Your task to perform on an android device: Go to internet settings Image 0: 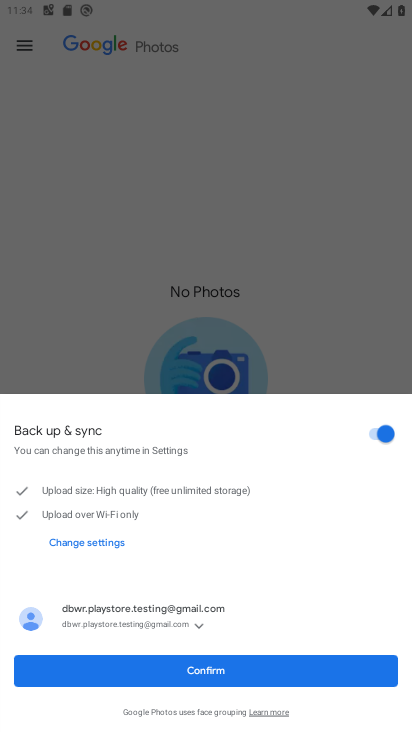
Step 0: press home button
Your task to perform on an android device: Go to internet settings Image 1: 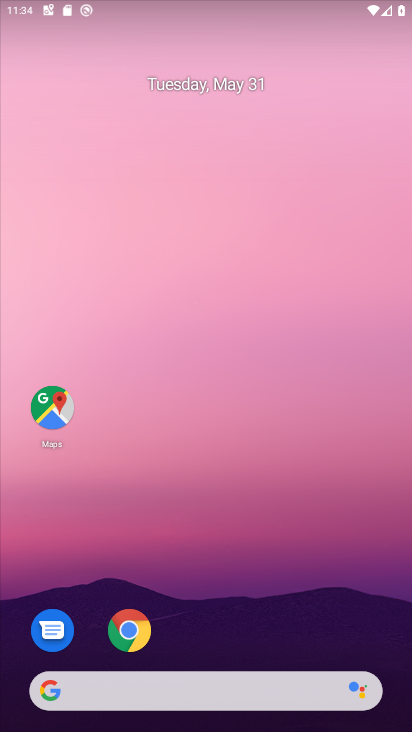
Step 1: drag from (249, 616) to (229, 230)
Your task to perform on an android device: Go to internet settings Image 2: 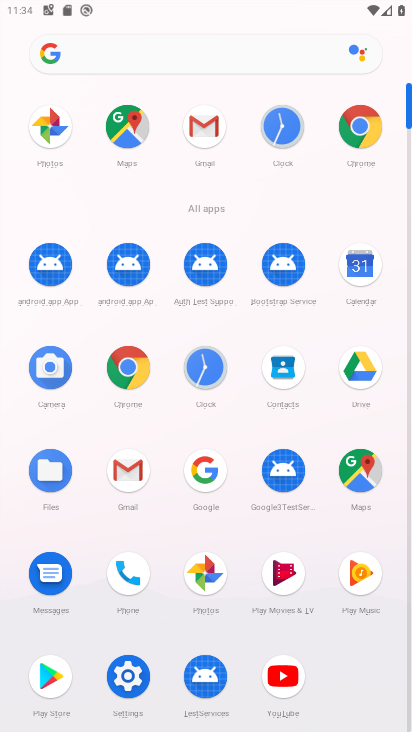
Step 2: click (127, 676)
Your task to perform on an android device: Go to internet settings Image 3: 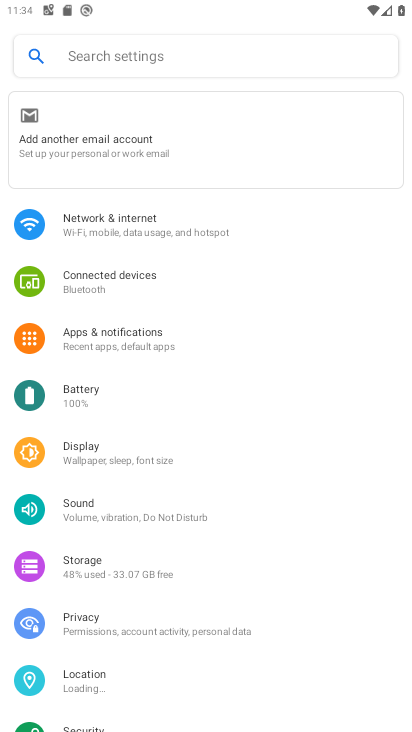
Step 3: click (127, 220)
Your task to perform on an android device: Go to internet settings Image 4: 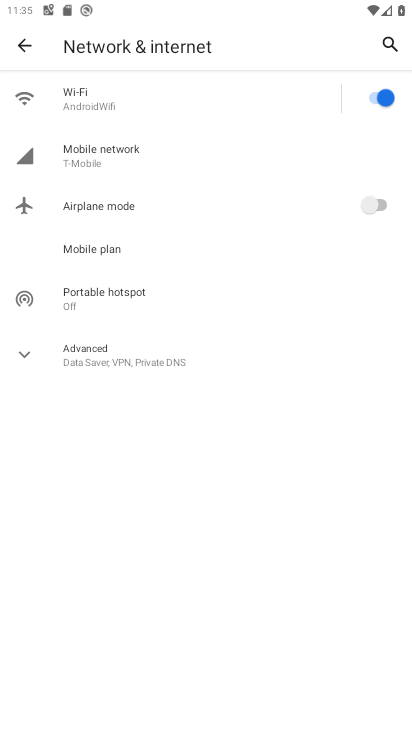
Step 4: task complete